Your task to perform on an android device: Search for Italian restaurants on Maps Image 0: 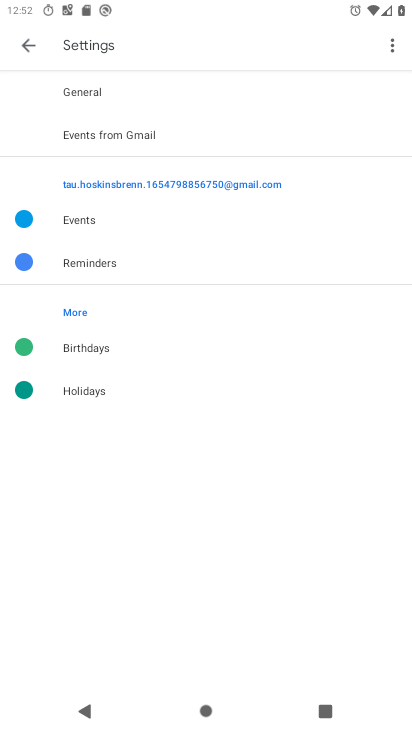
Step 0: press home button
Your task to perform on an android device: Search for Italian restaurants on Maps Image 1: 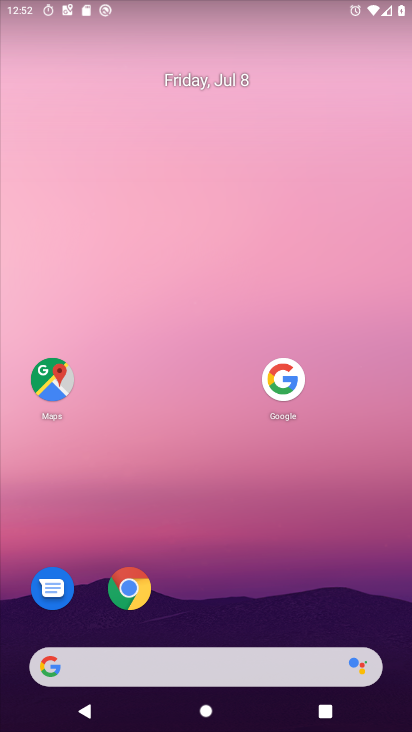
Step 1: click (37, 371)
Your task to perform on an android device: Search for Italian restaurants on Maps Image 2: 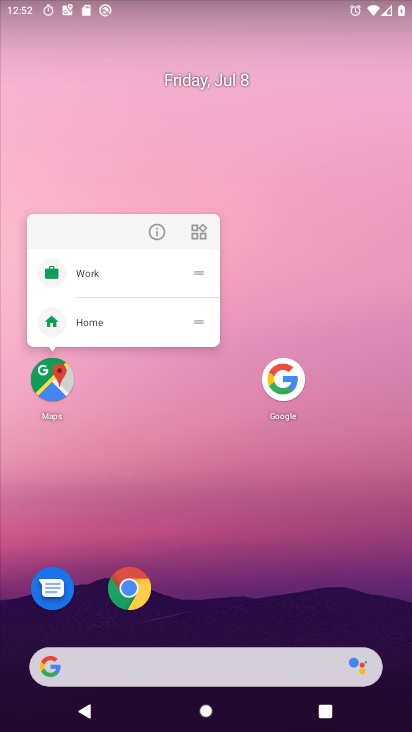
Step 2: click (47, 386)
Your task to perform on an android device: Search for Italian restaurants on Maps Image 3: 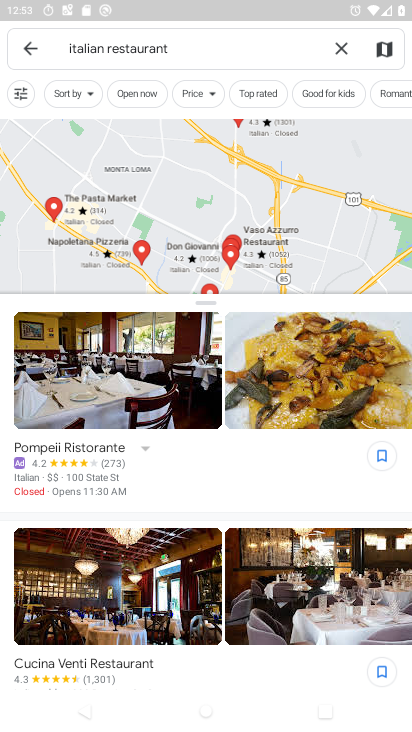
Step 3: task complete